Your task to perform on an android device: Search for amazon basics triple a on newegg, select the first entry, and add it to the cart. Image 0: 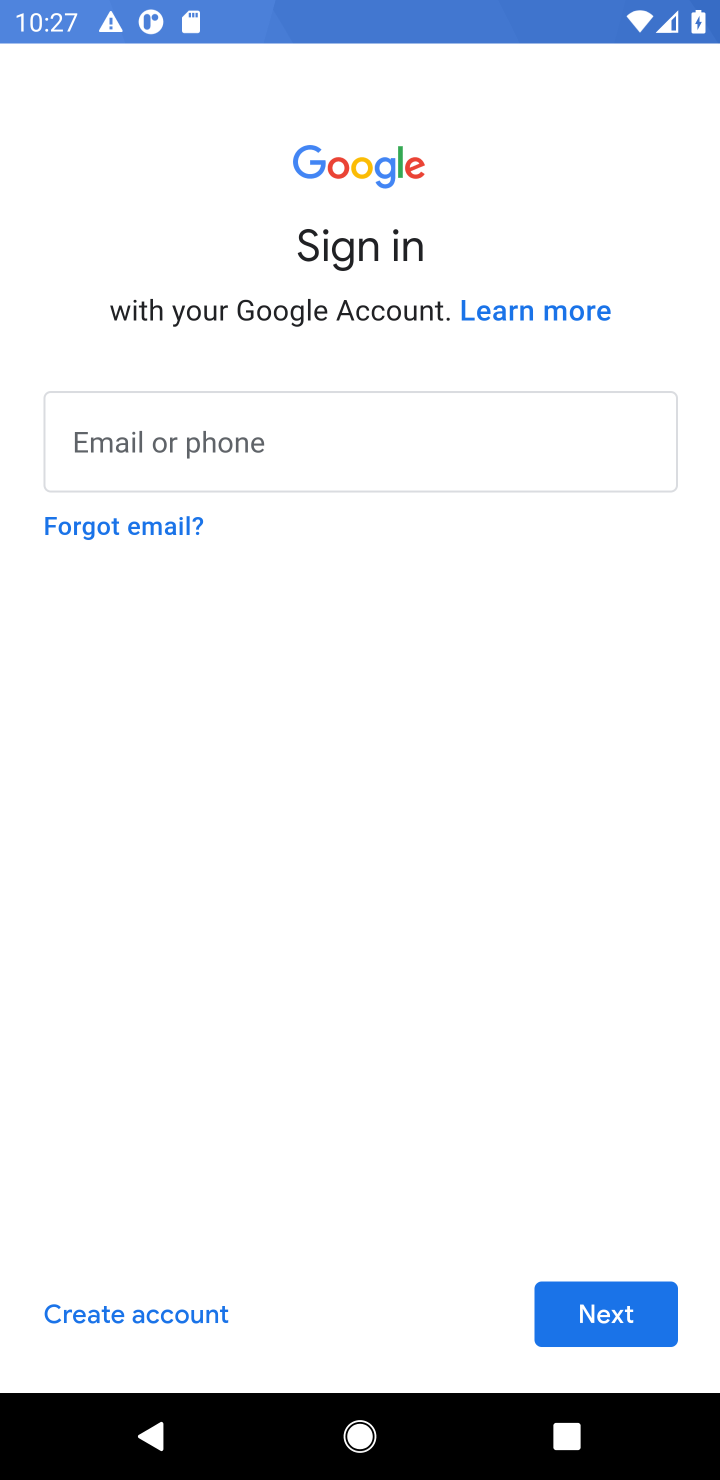
Step 0: press home button
Your task to perform on an android device: Search for amazon basics triple a on newegg, select the first entry, and add it to the cart. Image 1: 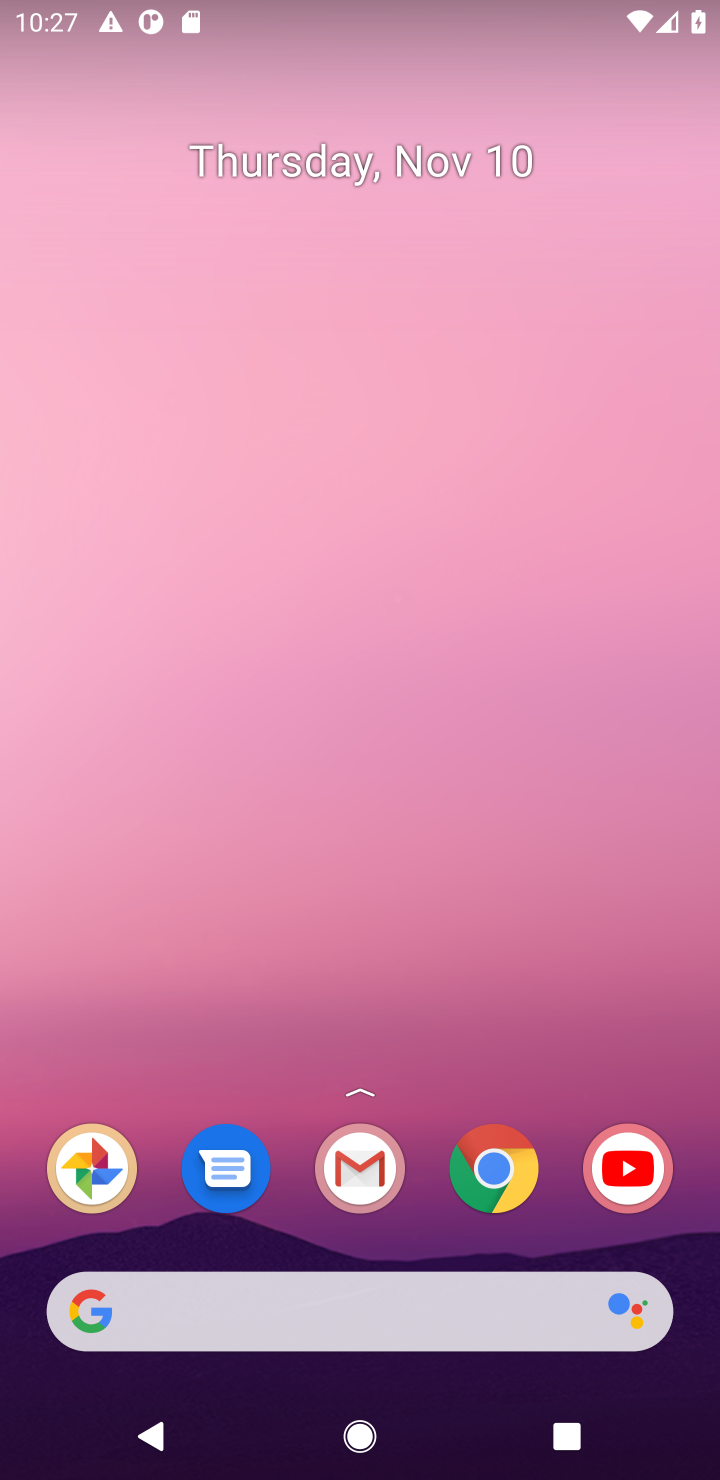
Step 1: click (496, 1168)
Your task to perform on an android device: Search for amazon basics triple a on newegg, select the first entry, and add it to the cart. Image 2: 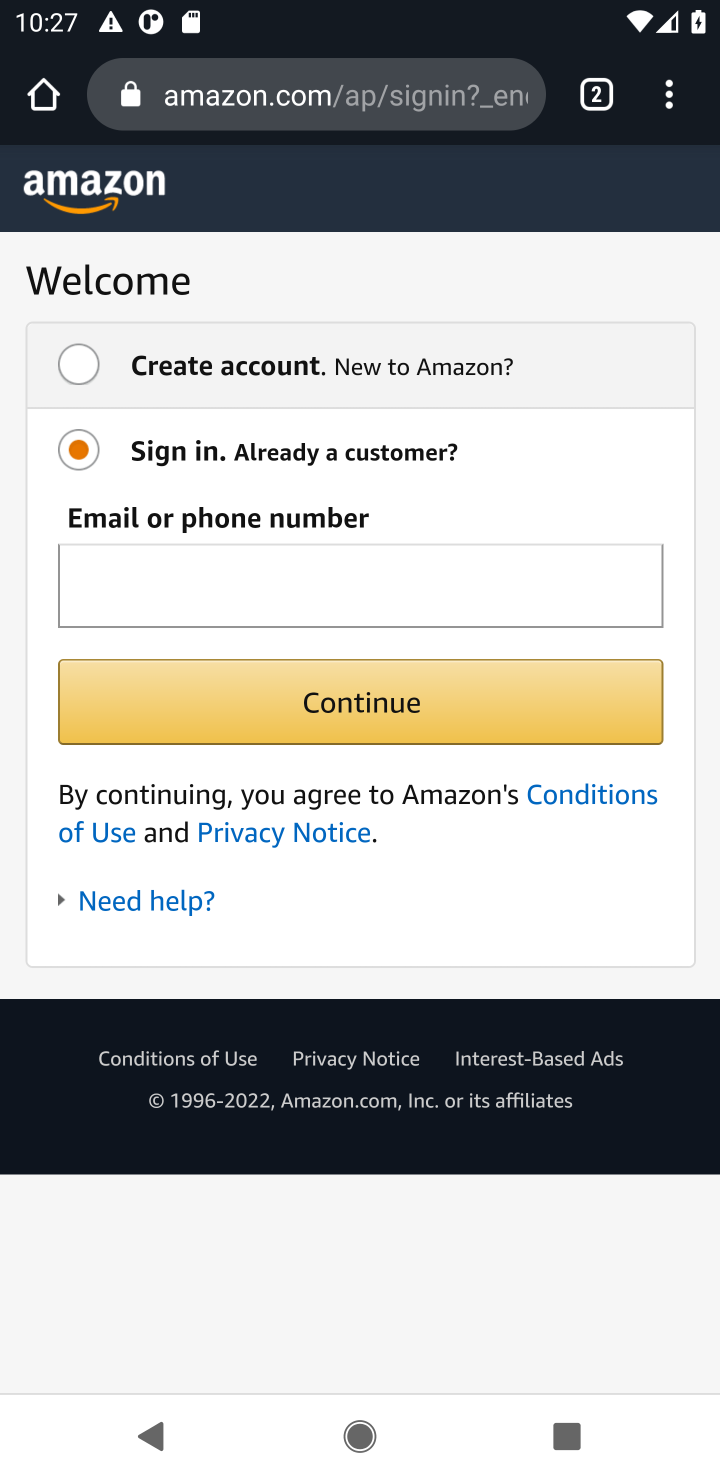
Step 2: click (267, 103)
Your task to perform on an android device: Search for amazon basics triple a on newegg, select the first entry, and add it to the cart. Image 3: 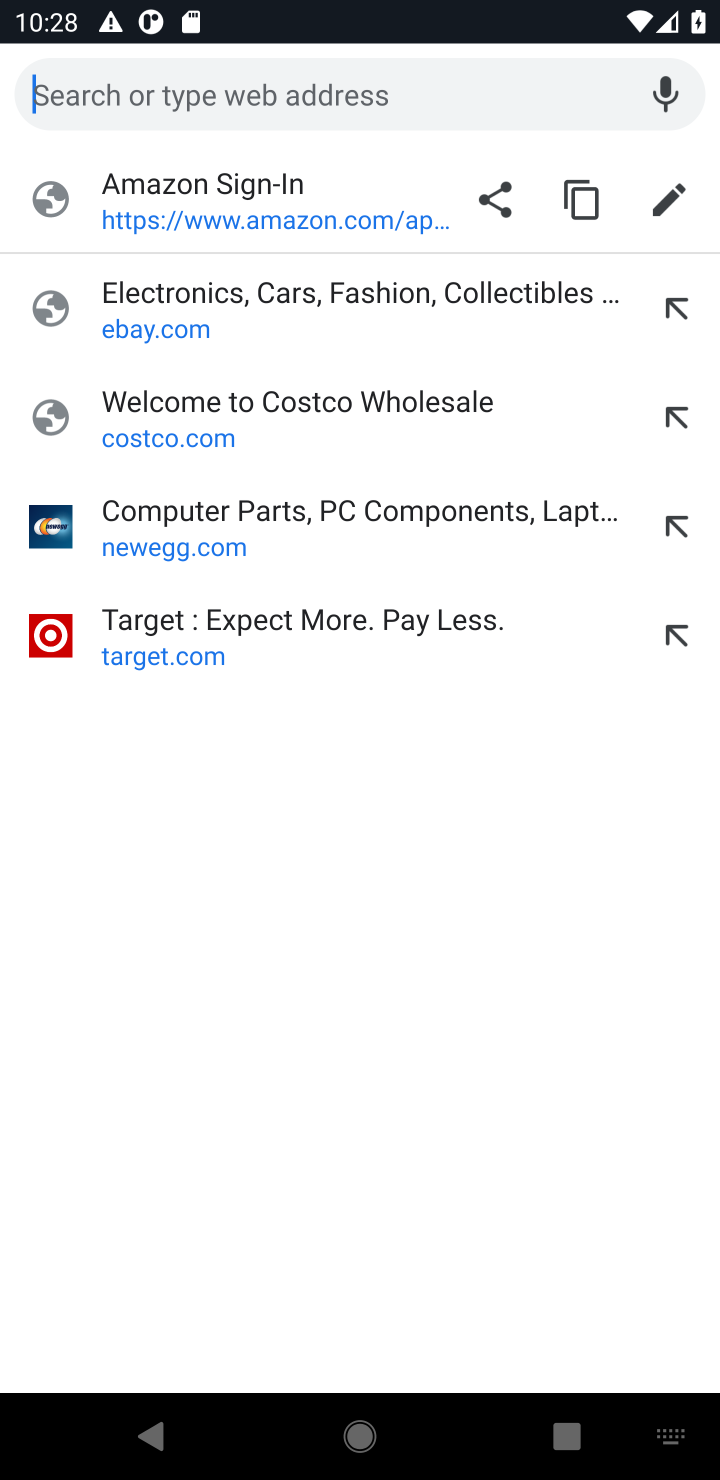
Step 3: click (143, 540)
Your task to perform on an android device: Search for amazon basics triple a on newegg, select the first entry, and add it to the cart. Image 4: 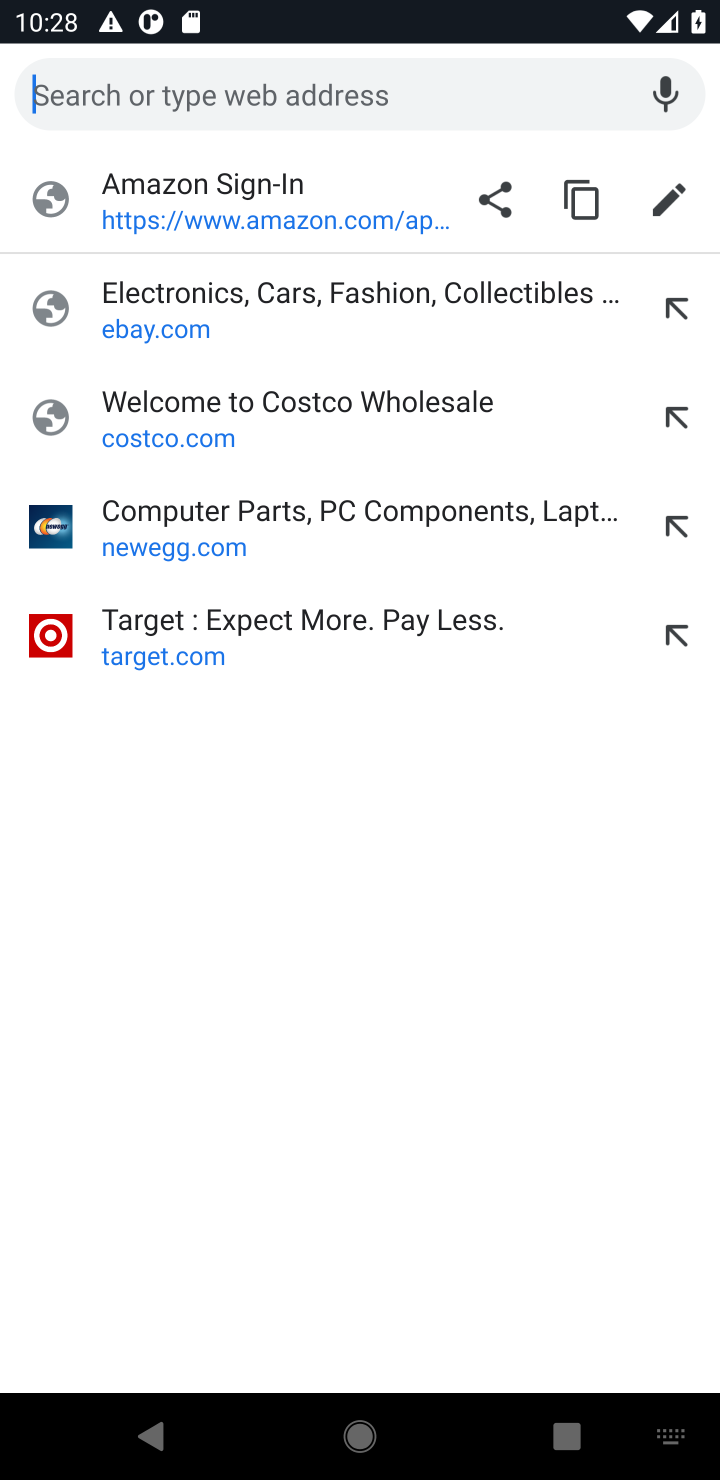
Step 4: click (138, 552)
Your task to perform on an android device: Search for amazon basics triple a on newegg, select the first entry, and add it to the cart. Image 5: 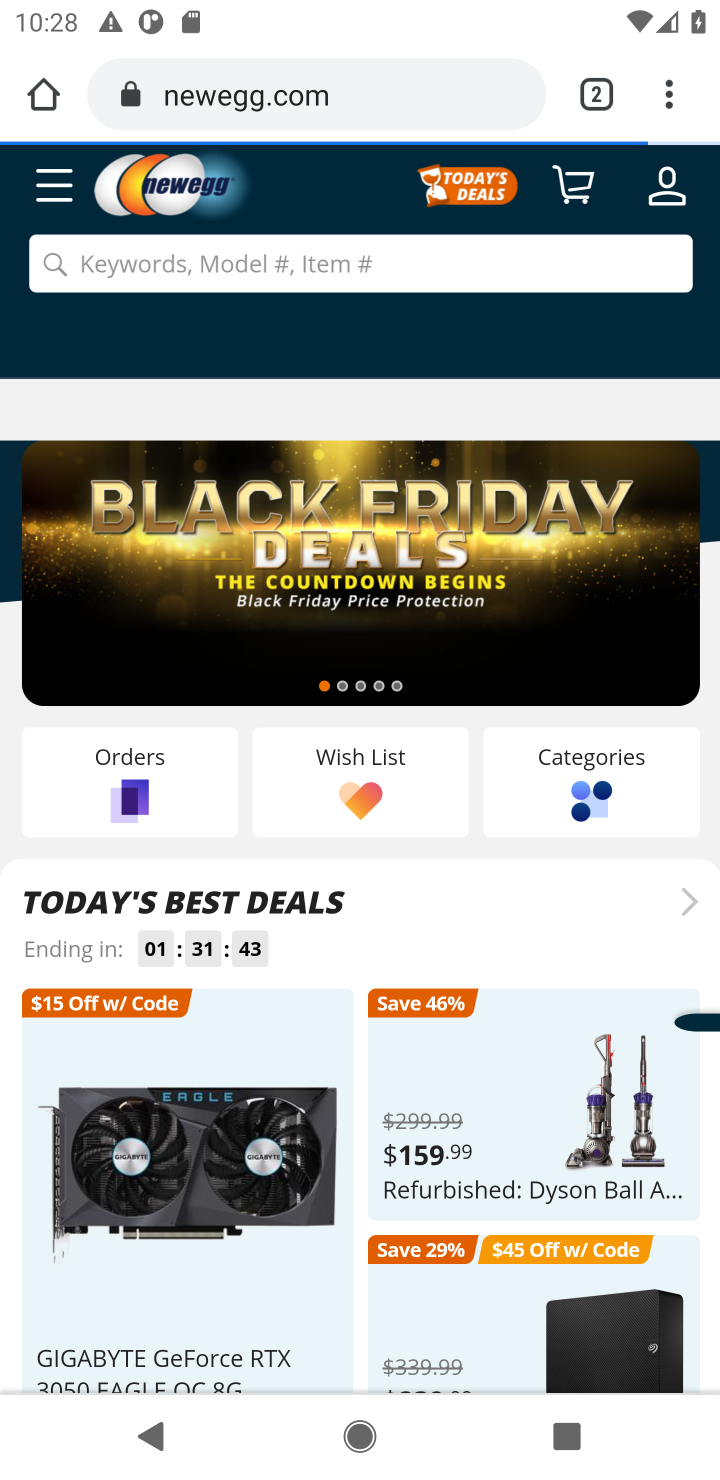
Step 5: click (185, 261)
Your task to perform on an android device: Search for amazon basics triple a on newegg, select the first entry, and add it to the cart. Image 6: 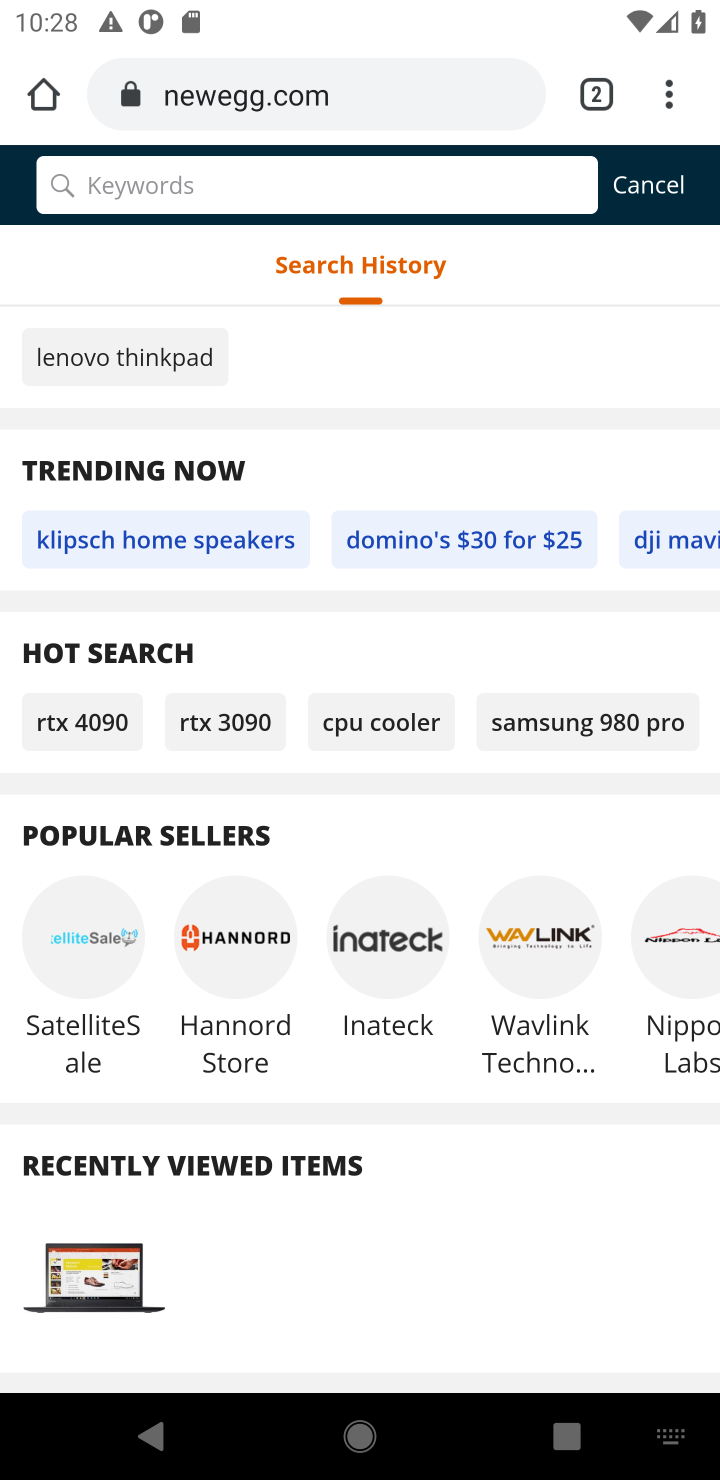
Step 6: type "amazon basics triple a"
Your task to perform on an android device: Search for amazon basics triple a on newegg, select the first entry, and add it to the cart. Image 7: 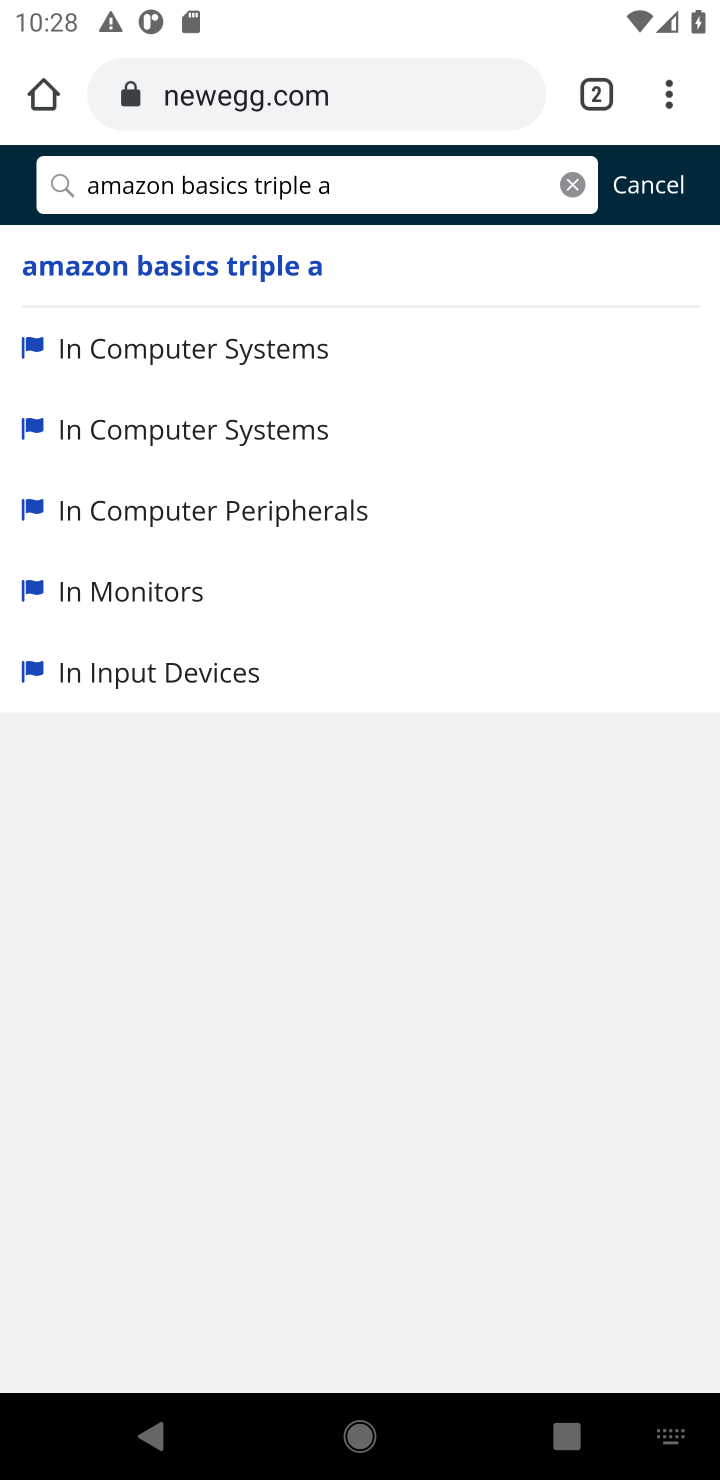
Step 7: click (195, 288)
Your task to perform on an android device: Search for amazon basics triple a on newegg, select the first entry, and add it to the cart. Image 8: 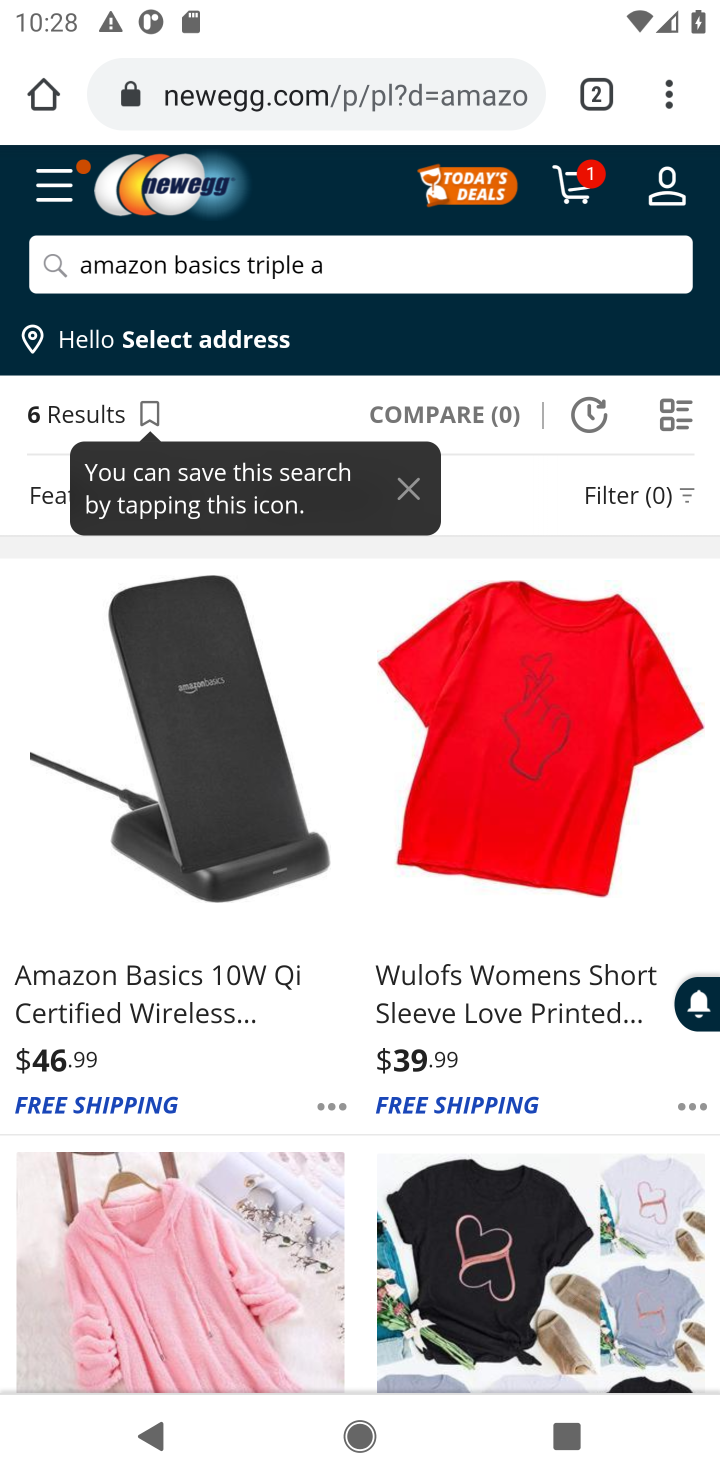
Step 8: task complete